Your task to perform on an android device: Toggle the flashlight Image 0: 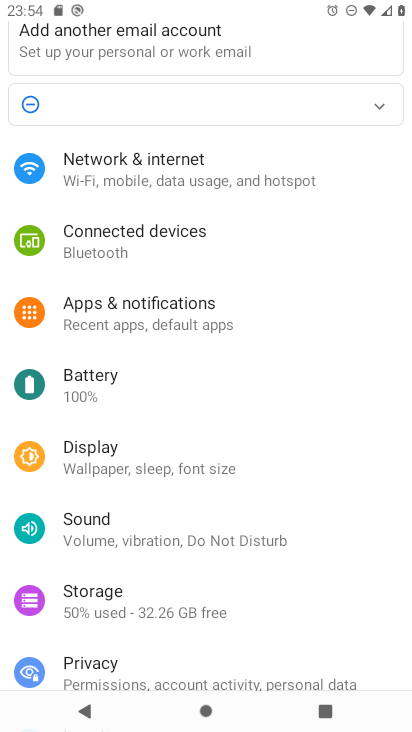
Step 0: press home button
Your task to perform on an android device: Toggle the flashlight Image 1: 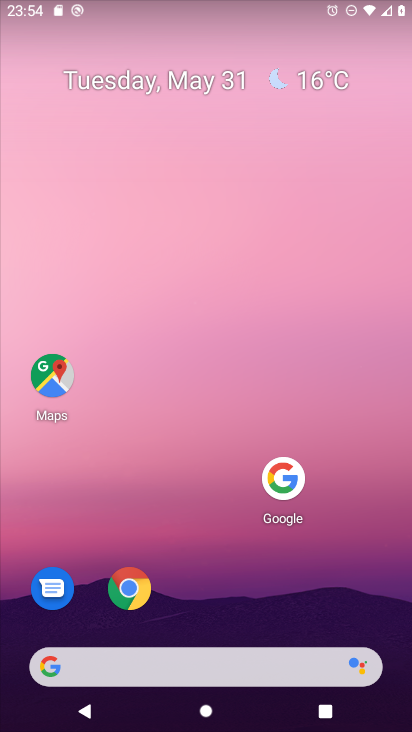
Step 1: task complete